Your task to perform on an android device: Show me recent news Image 0: 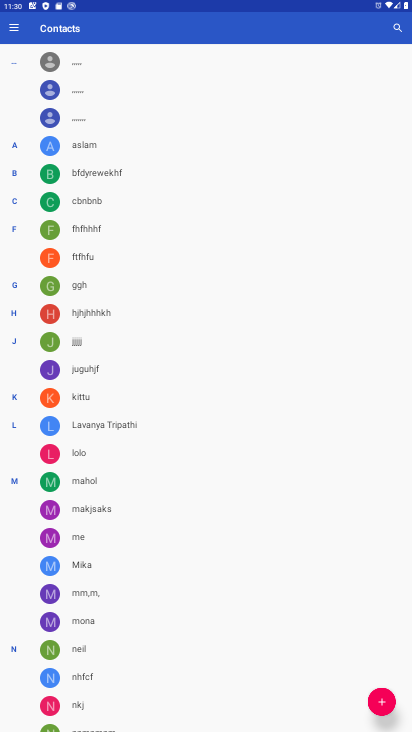
Step 0: press home button
Your task to perform on an android device: Show me recent news Image 1: 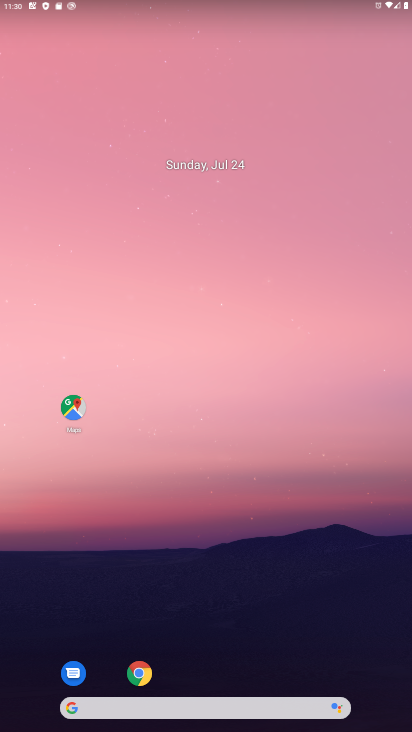
Step 1: drag from (308, 647) to (264, 118)
Your task to perform on an android device: Show me recent news Image 2: 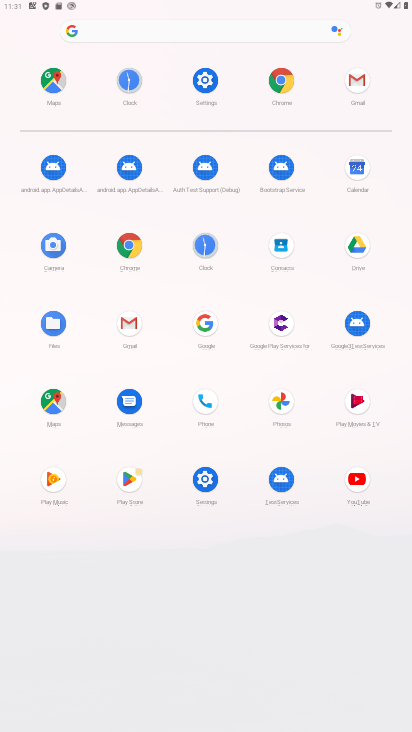
Step 2: click (127, 245)
Your task to perform on an android device: Show me recent news Image 3: 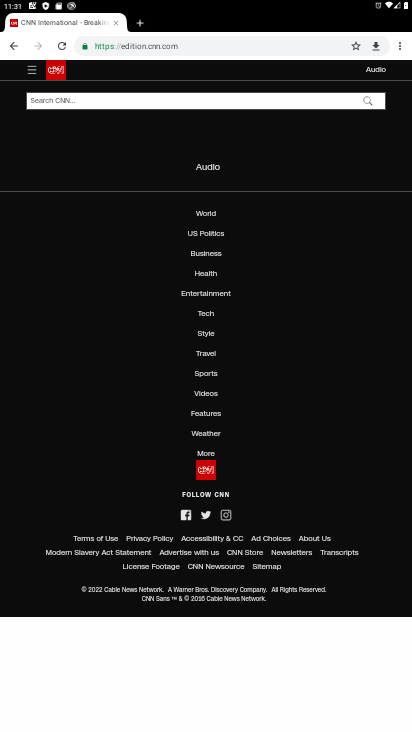
Step 3: click (241, 50)
Your task to perform on an android device: Show me recent news Image 4: 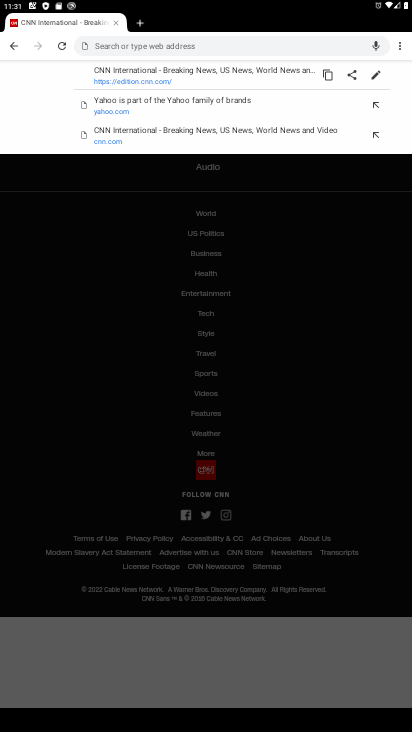
Step 4: type "news"
Your task to perform on an android device: Show me recent news Image 5: 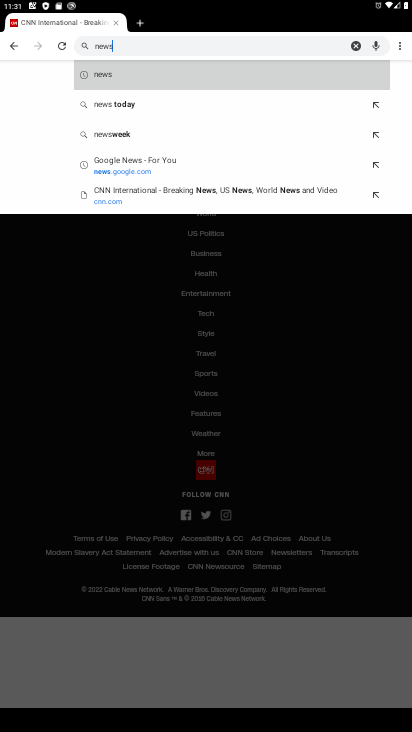
Step 5: click (117, 67)
Your task to perform on an android device: Show me recent news Image 6: 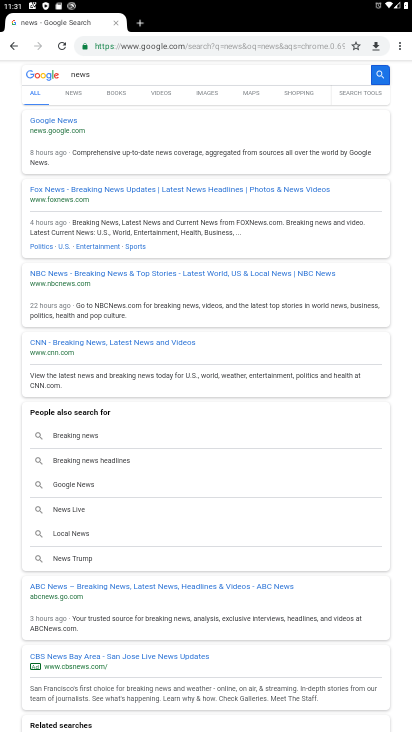
Step 6: click (49, 124)
Your task to perform on an android device: Show me recent news Image 7: 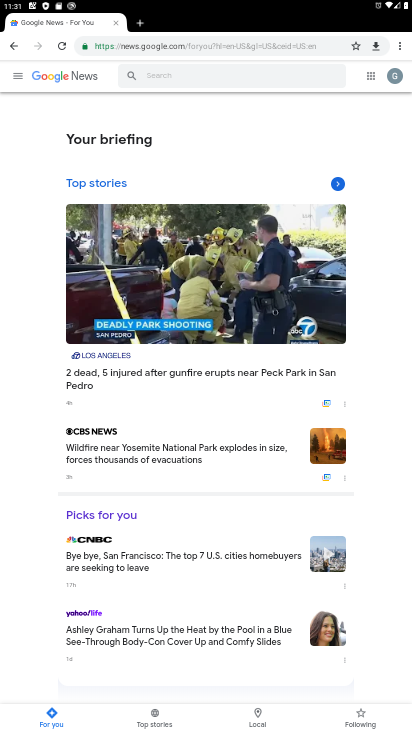
Step 7: task complete